Your task to perform on an android device: change the clock display to show seconds Image 0: 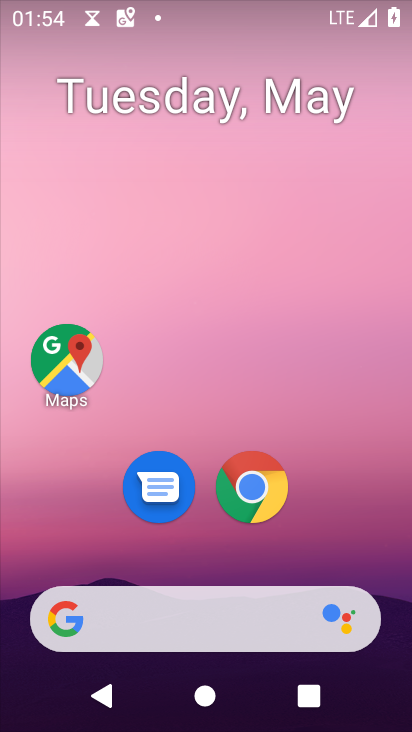
Step 0: drag from (332, 536) to (269, 13)
Your task to perform on an android device: change the clock display to show seconds Image 1: 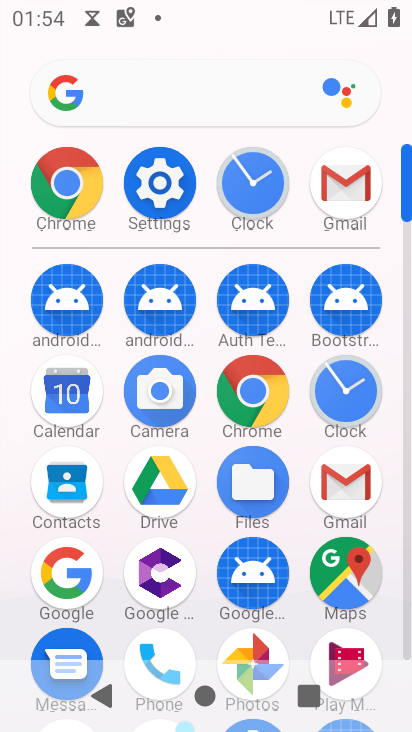
Step 1: click (318, 380)
Your task to perform on an android device: change the clock display to show seconds Image 2: 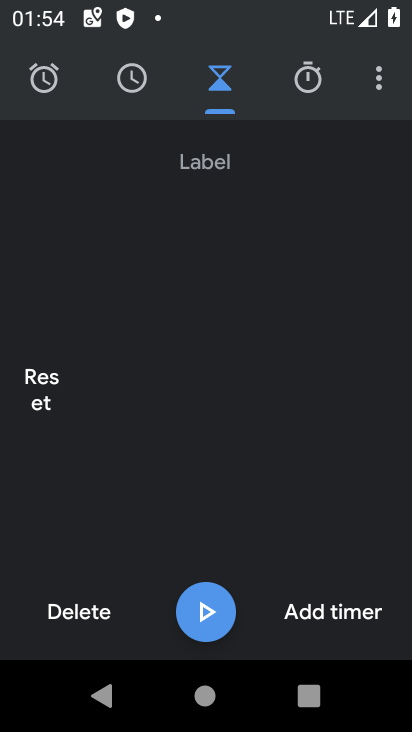
Step 2: click (370, 67)
Your task to perform on an android device: change the clock display to show seconds Image 3: 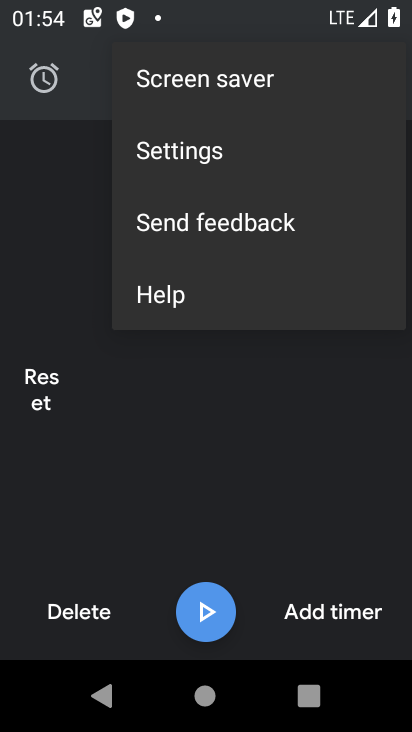
Step 3: click (218, 155)
Your task to perform on an android device: change the clock display to show seconds Image 4: 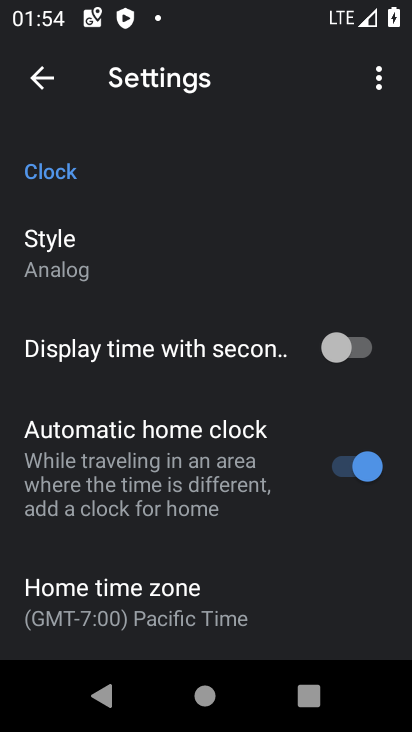
Step 4: click (327, 338)
Your task to perform on an android device: change the clock display to show seconds Image 5: 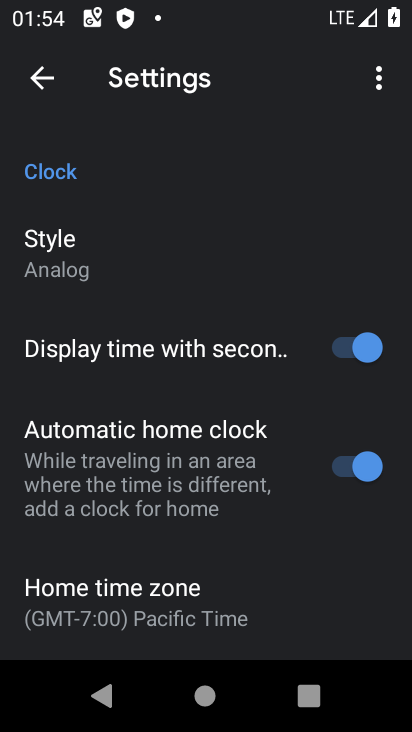
Step 5: task complete